Your task to perform on an android device: turn off airplane mode Image 0: 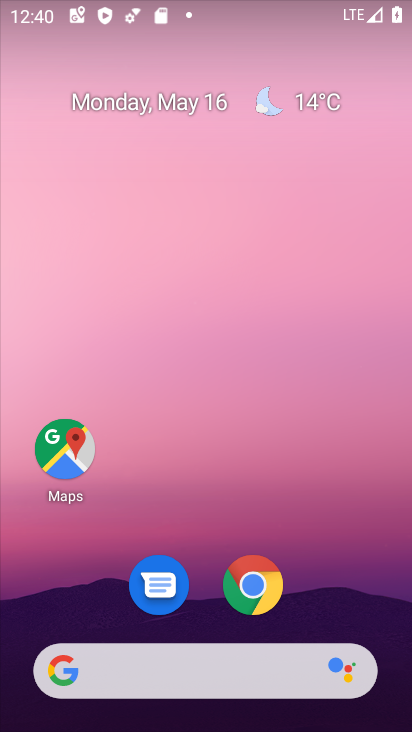
Step 0: drag from (225, 483) to (230, 39)
Your task to perform on an android device: turn off airplane mode Image 1: 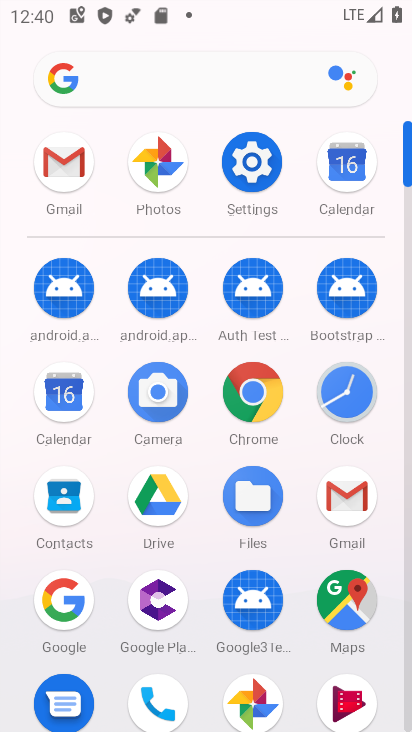
Step 1: click (244, 155)
Your task to perform on an android device: turn off airplane mode Image 2: 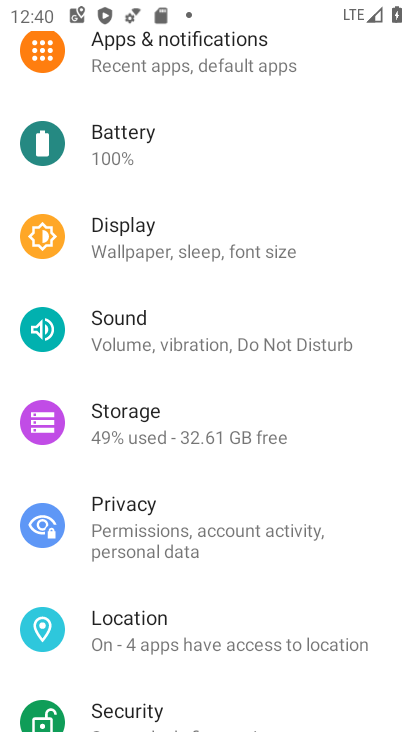
Step 2: drag from (243, 181) to (248, 583)
Your task to perform on an android device: turn off airplane mode Image 3: 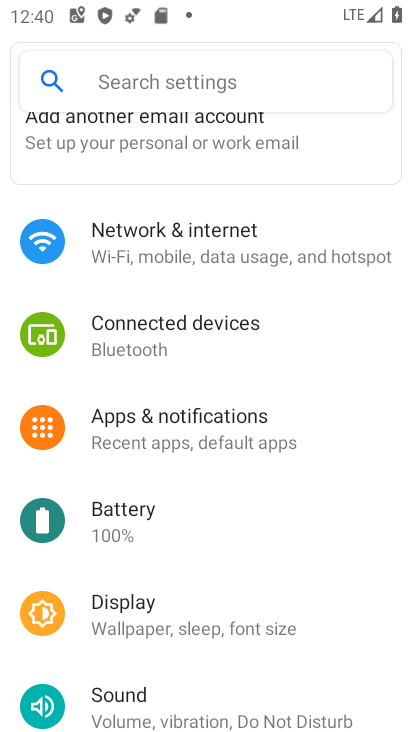
Step 3: click (249, 237)
Your task to perform on an android device: turn off airplane mode Image 4: 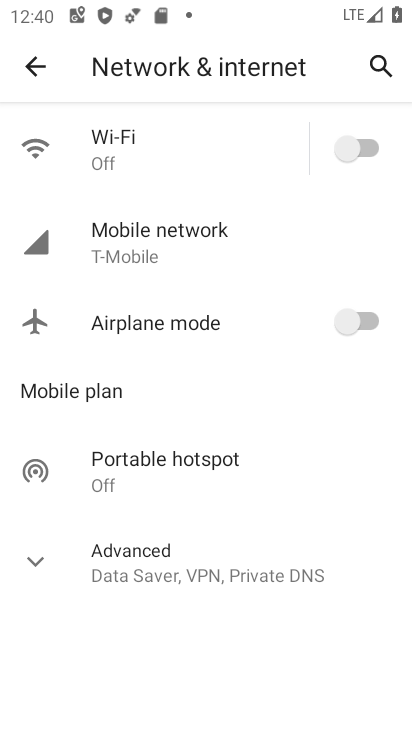
Step 4: task complete